Your task to perform on an android device: turn on data saver in the chrome app Image 0: 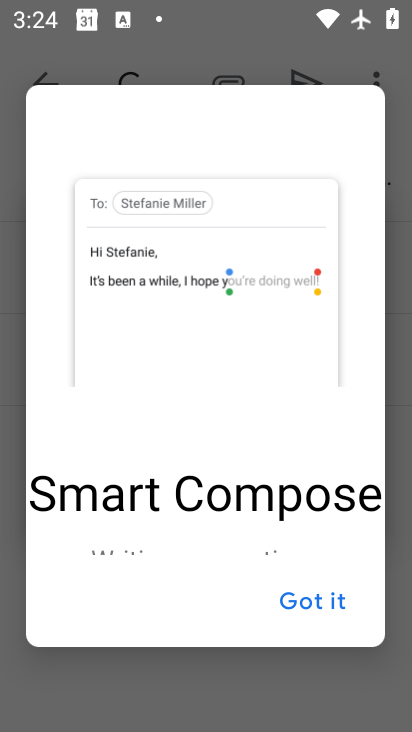
Step 0: press home button
Your task to perform on an android device: turn on data saver in the chrome app Image 1: 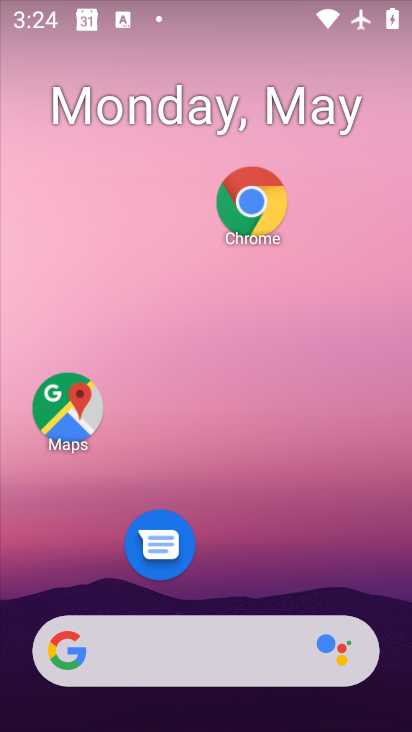
Step 1: click (265, 208)
Your task to perform on an android device: turn on data saver in the chrome app Image 2: 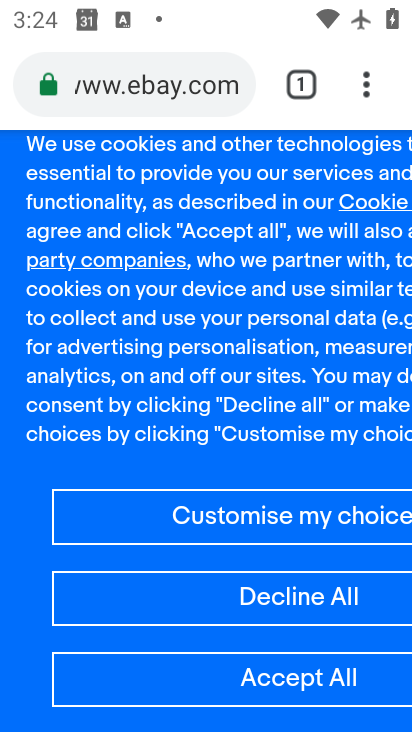
Step 2: click (364, 80)
Your task to perform on an android device: turn on data saver in the chrome app Image 3: 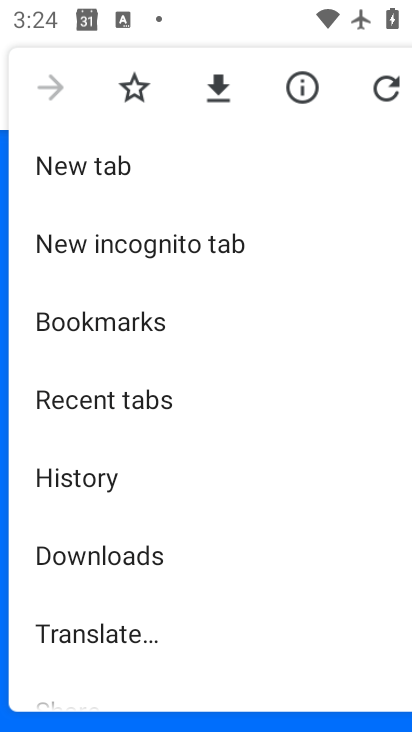
Step 3: drag from (191, 676) to (195, 361)
Your task to perform on an android device: turn on data saver in the chrome app Image 4: 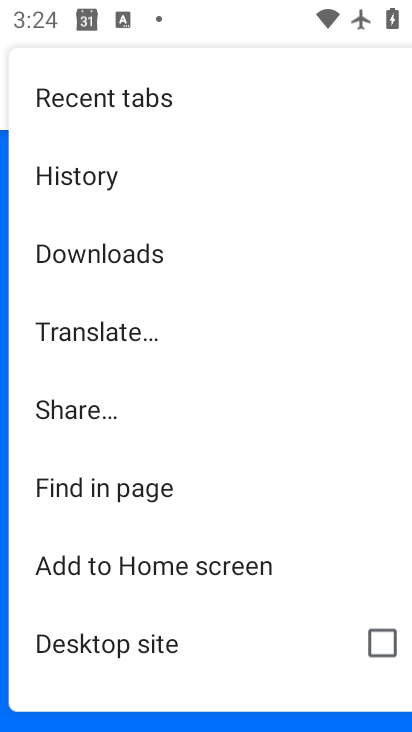
Step 4: drag from (170, 630) to (233, 270)
Your task to perform on an android device: turn on data saver in the chrome app Image 5: 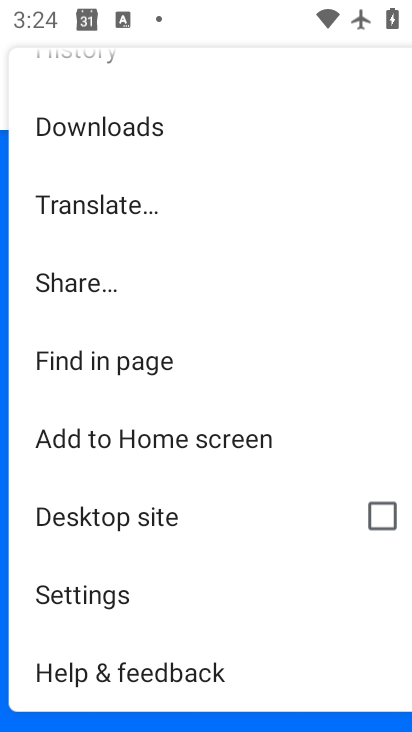
Step 5: click (99, 593)
Your task to perform on an android device: turn on data saver in the chrome app Image 6: 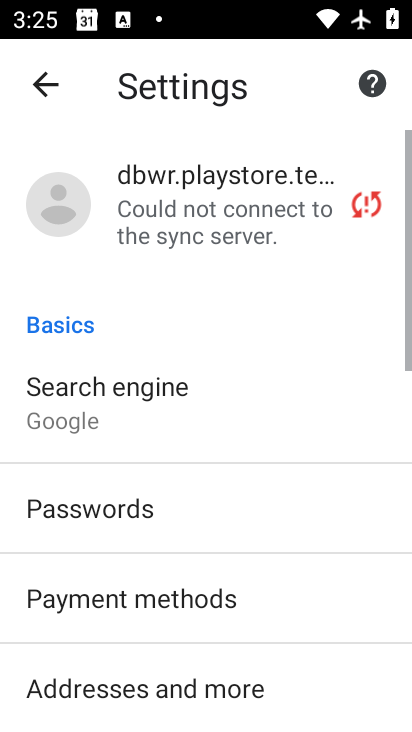
Step 6: drag from (143, 692) to (220, 302)
Your task to perform on an android device: turn on data saver in the chrome app Image 7: 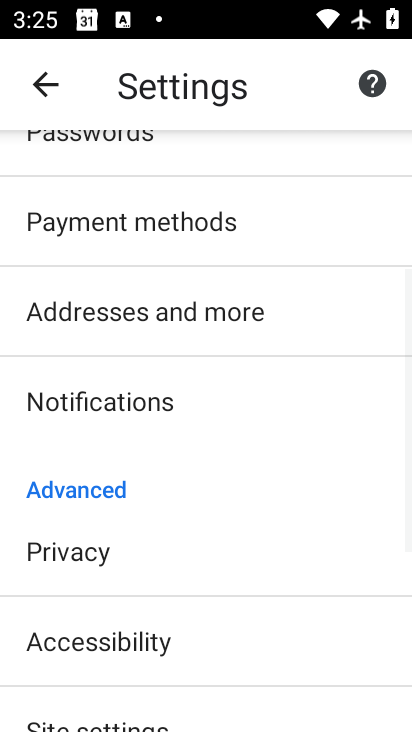
Step 7: drag from (194, 620) to (204, 357)
Your task to perform on an android device: turn on data saver in the chrome app Image 8: 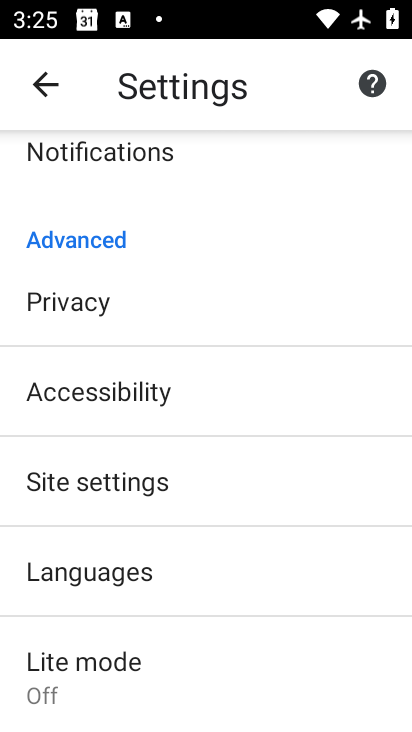
Step 8: click (121, 676)
Your task to perform on an android device: turn on data saver in the chrome app Image 9: 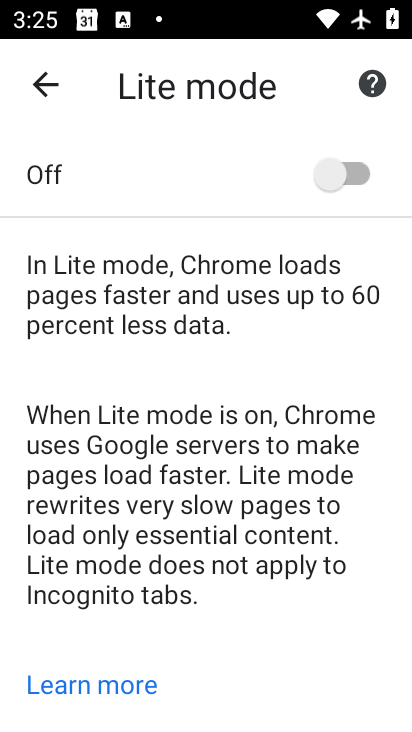
Step 9: click (359, 180)
Your task to perform on an android device: turn on data saver in the chrome app Image 10: 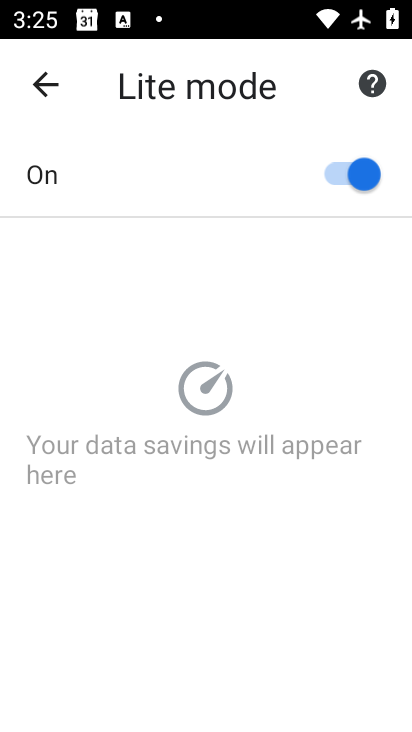
Step 10: task complete